Your task to perform on an android device: Open Chrome and go to settings Image 0: 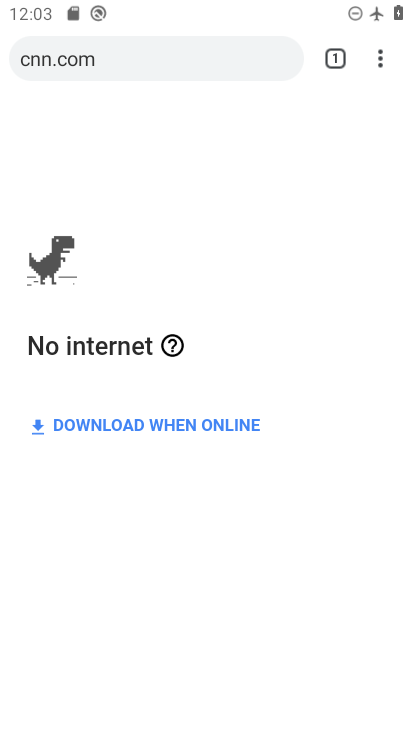
Step 0: press home button
Your task to perform on an android device: Open Chrome and go to settings Image 1: 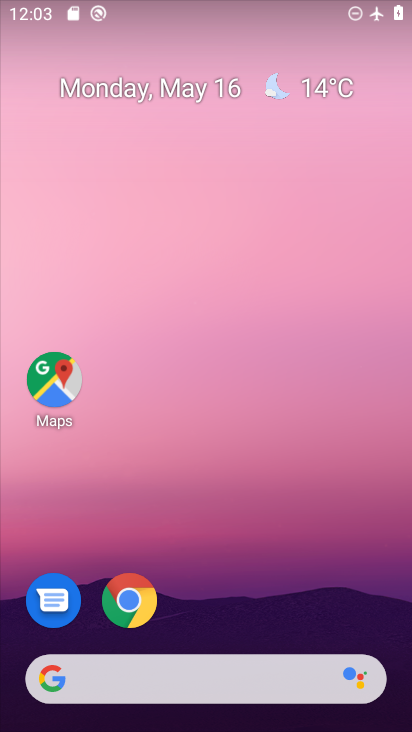
Step 1: click (128, 599)
Your task to perform on an android device: Open Chrome and go to settings Image 2: 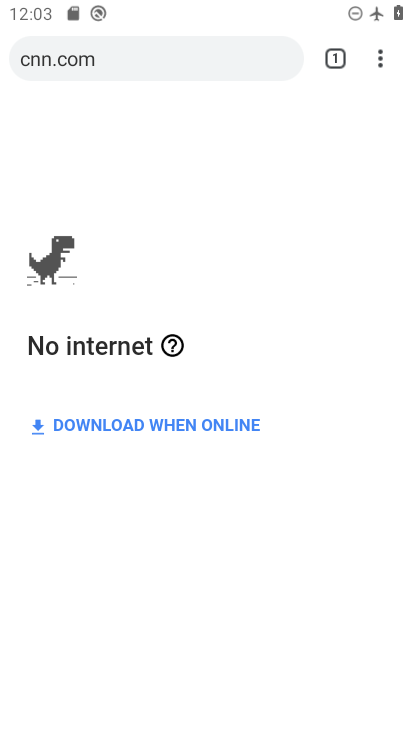
Step 2: click (381, 63)
Your task to perform on an android device: Open Chrome and go to settings Image 3: 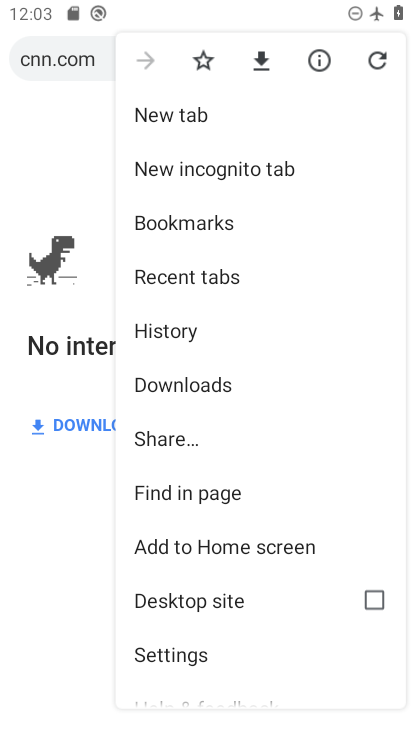
Step 3: click (175, 647)
Your task to perform on an android device: Open Chrome and go to settings Image 4: 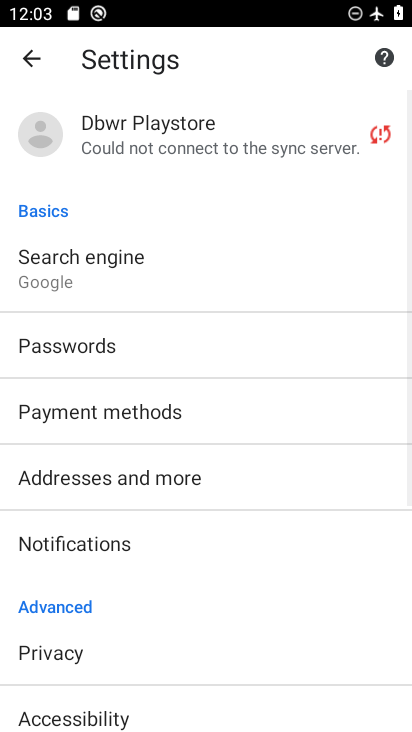
Step 4: task complete